Your task to perform on an android device: Open Google Chrome Image 0: 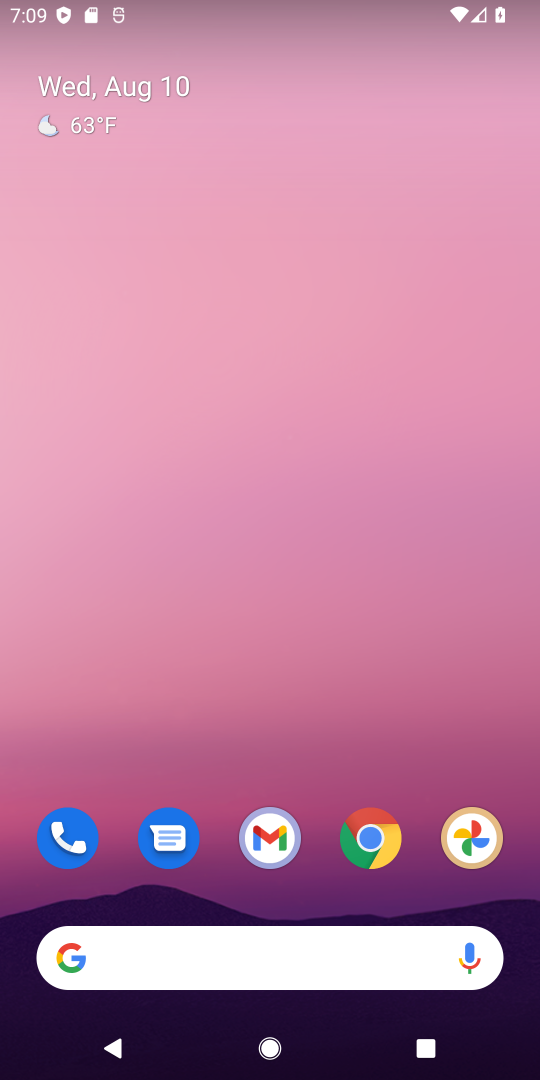
Step 0: drag from (323, 882) to (453, 205)
Your task to perform on an android device: Open Google Chrome Image 1: 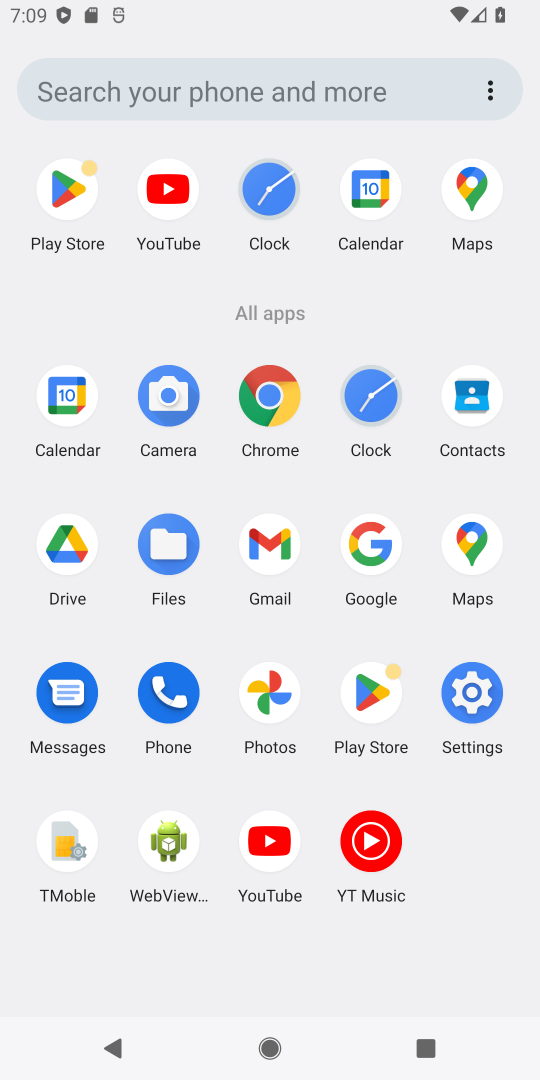
Step 1: click (255, 398)
Your task to perform on an android device: Open Google Chrome Image 2: 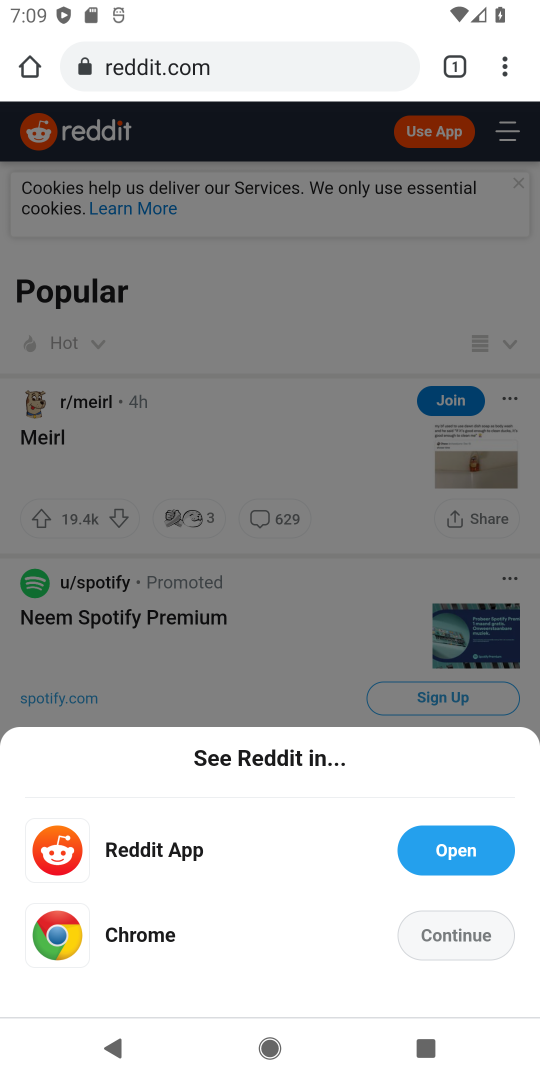
Step 2: task complete